Your task to perform on an android device: turn pop-ups on in chrome Image 0: 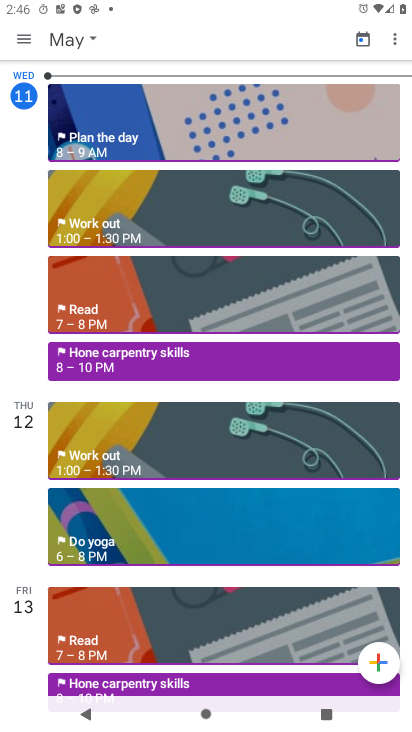
Step 0: press home button
Your task to perform on an android device: turn pop-ups on in chrome Image 1: 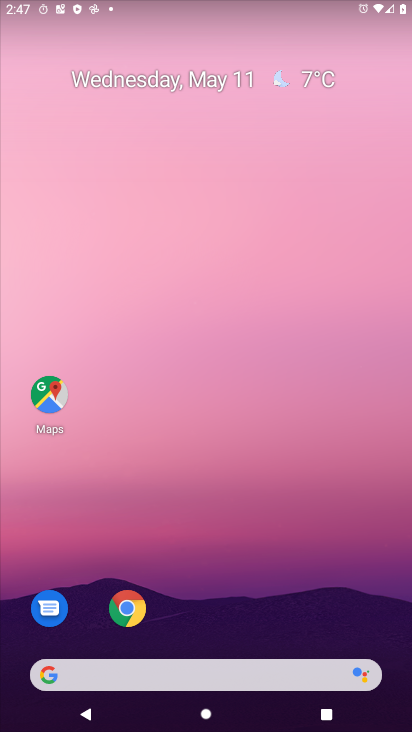
Step 1: click (129, 607)
Your task to perform on an android device: turn pop-ups on in chrome Image 2: 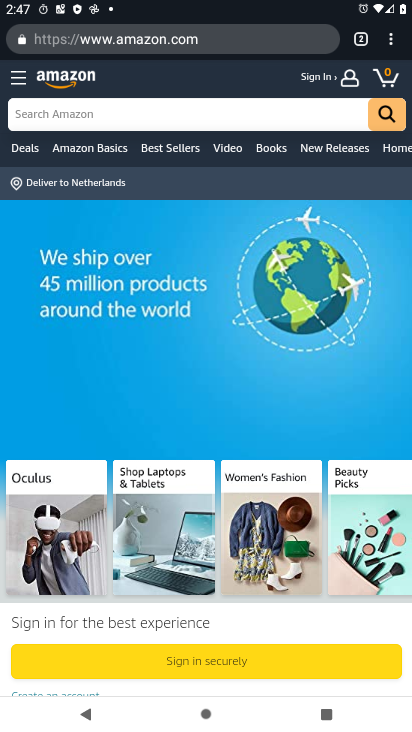
Step 2: click (383, 43)
Your task to perform on an android device: turn pop-ups on in chrome Image 3: 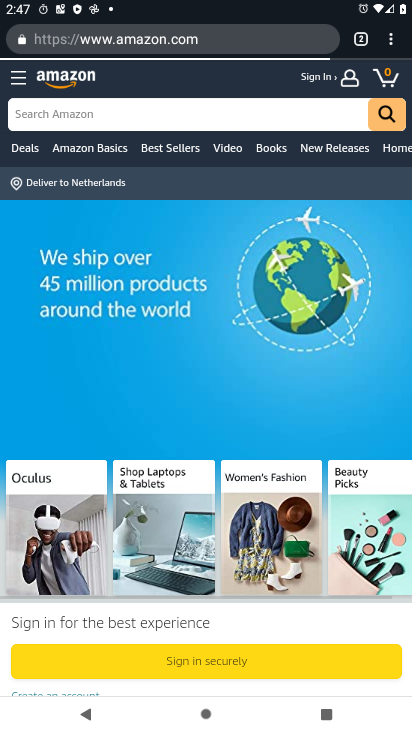
Step 3: click (383, 43)
Your task to perform on an android device: turn pop-ups on in chrome Image 4: 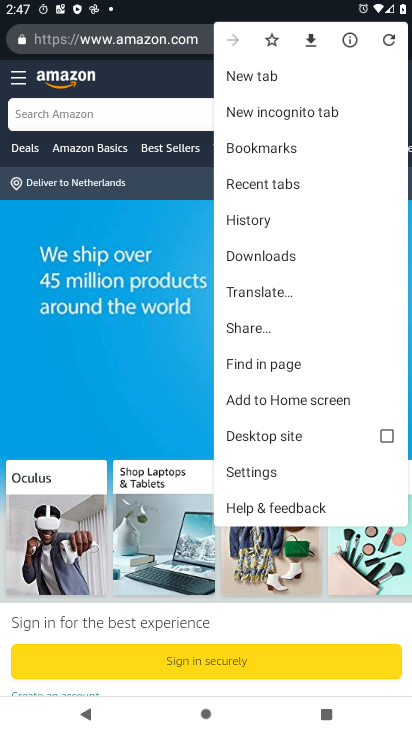
Step 4: click (263, 476)
Your task to perform on an android device: turn pop-ups on in chrome Image 5: 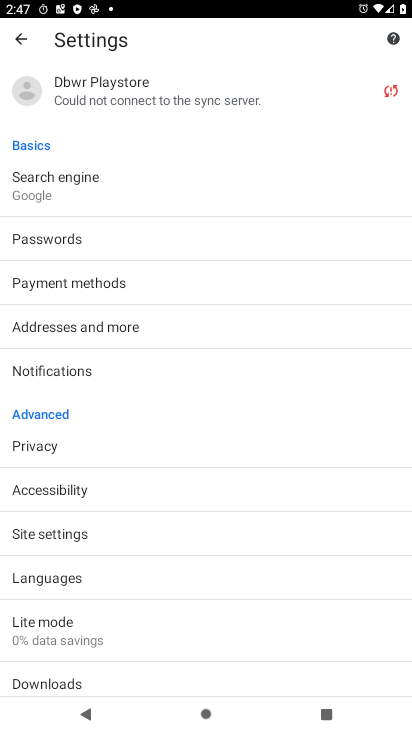
Step 5: drag from (125, 569) to (130, 313)
Your task to perform on an android device: turn pop-ups on in chrome Image 6: 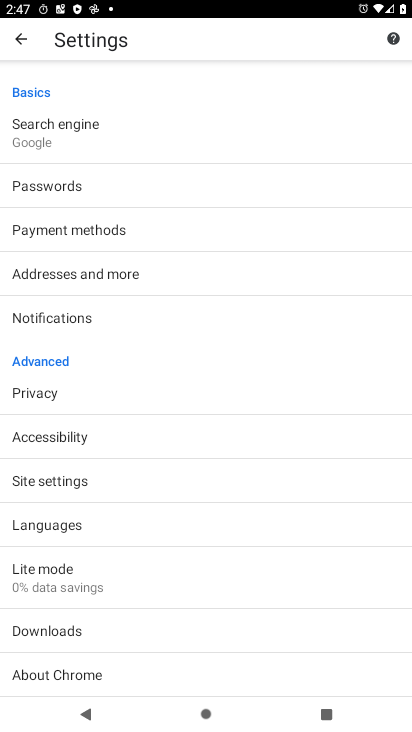
Step 6: click (90, 481)
Your task to perform on an android device: turn pop-ups on in chrome Image 7: 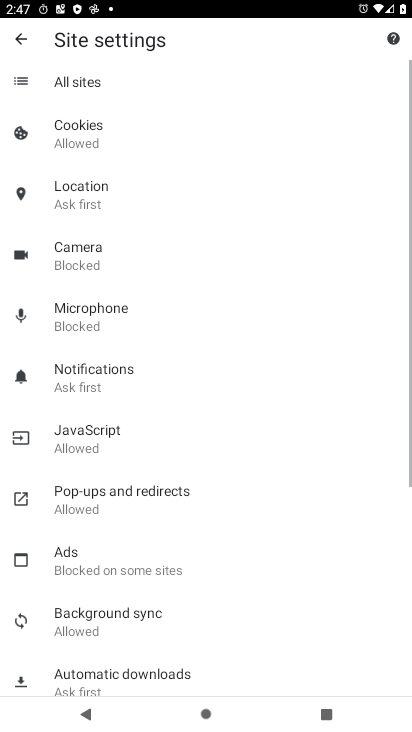
Step 7: click (71, 508)
Your task to perform on an android device: turn pop-ups on in chrome Image 8: 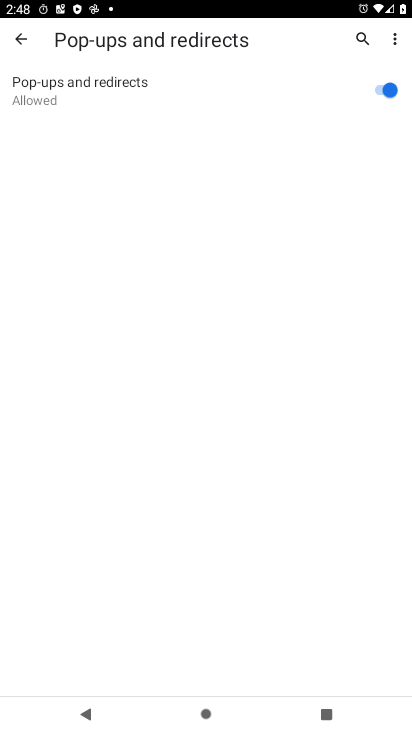
Step 8: task complete